Your task to perform on an android device: turn on priority inbox in the gmail app Image 0: 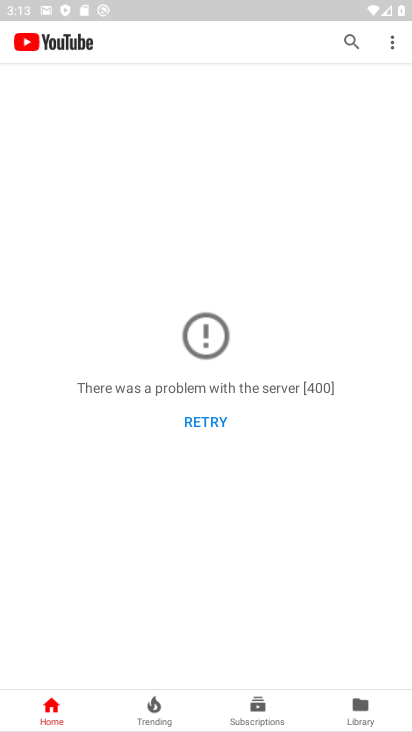
Step 0: press home button
Your task to perform on an android device: turn on priority inbox in the gmail app Image 1: 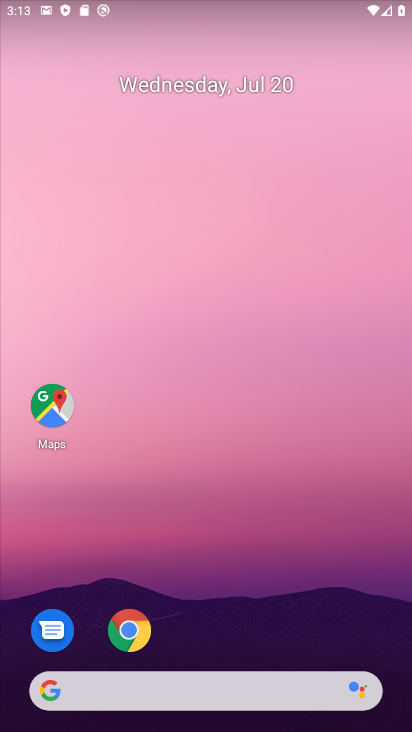
Step 1: drag from (237, 493) to (333, 0)
Your task to perform on an android device: turn on priority inbox in the gmail app Image 2: 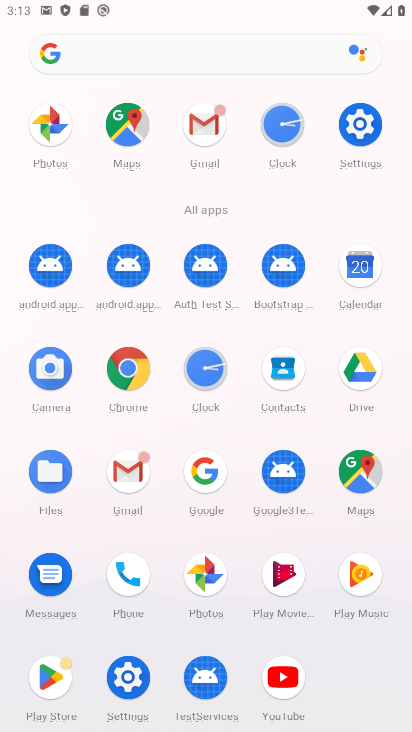
Step 2: click (209, 123)
Your task to perform on an android device: turn on priority inbox in the gmail app Image 3: 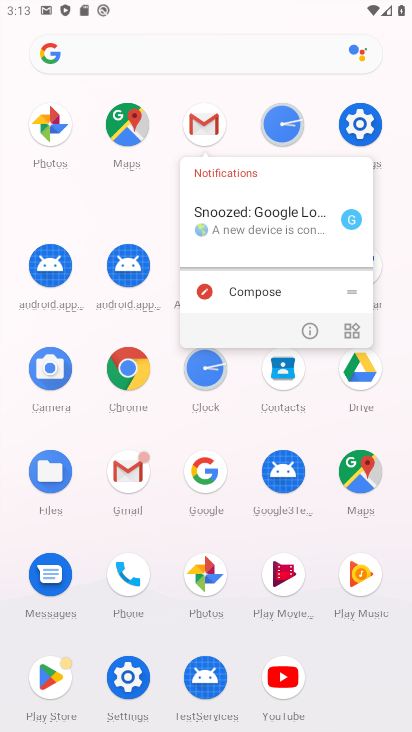
Step 3: click (209, 135)
Your task to perform on an android device: turn on priority inbox in the gmail app Image 4: 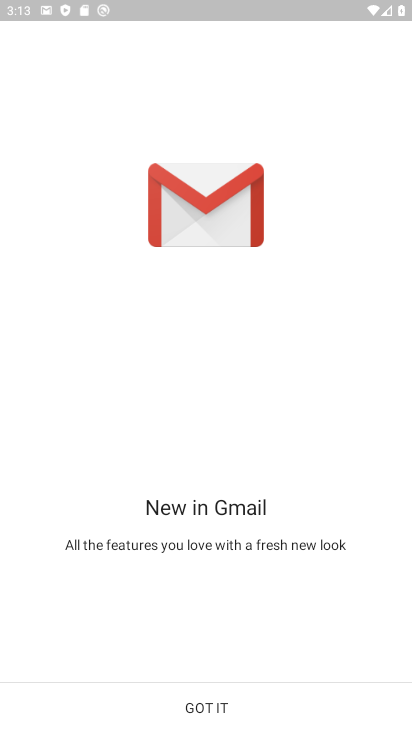
Step 4: click (199, 706)
Your task to perform on an android device: turn on priority inbox in the gmail app Image 5: 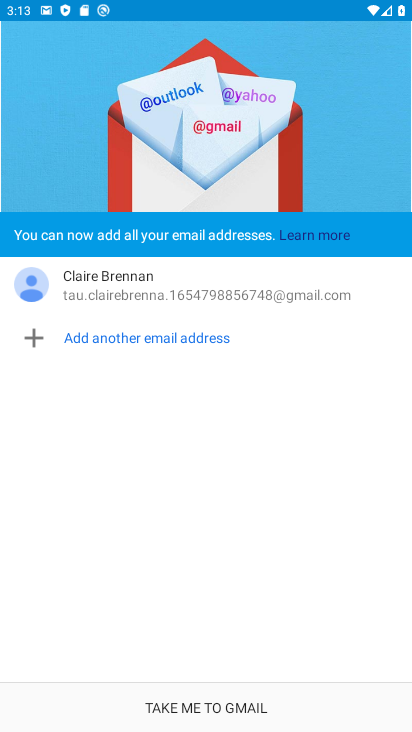
Step 5: click (205, 710)
Your task to perform on an android device: turn on priority inbox in the gmail app Image 6: 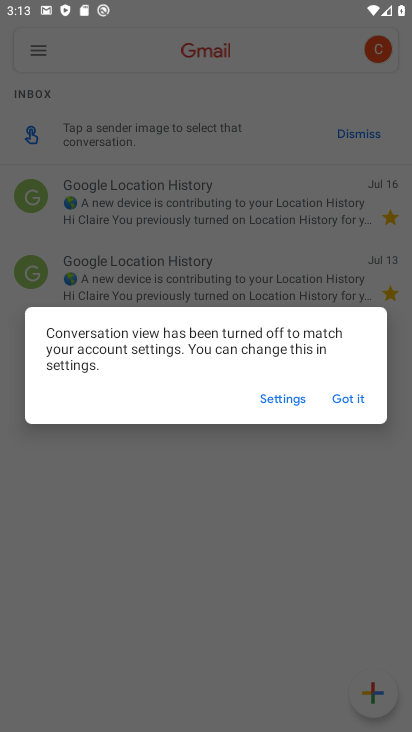
Step 6: click (346, 398)
Your task to perform on an android device: turn on priority inbox in the gmail app Image 7: 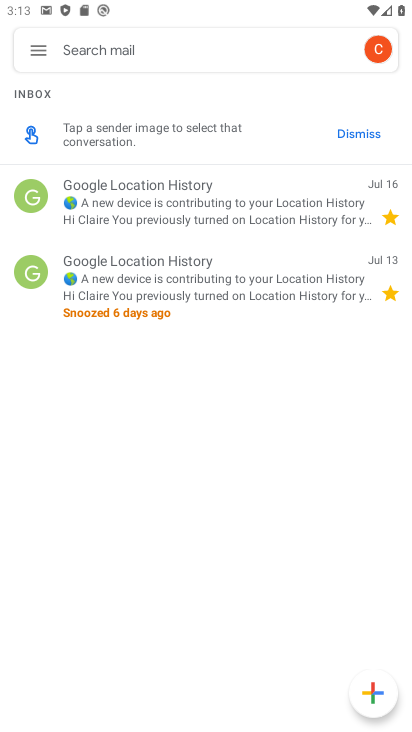
Step 7: click (32, 38)
Your task to perform on an android device: turn on priority inbox in the gmail app Image 8: 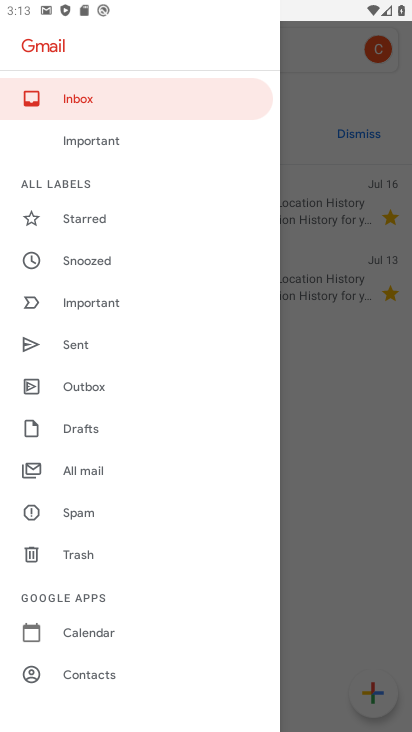
Step 8: drag from (114, 605) to (217, 103)
Your task to perform on an android device: turn on priority inbox in the gmail app Image 9: 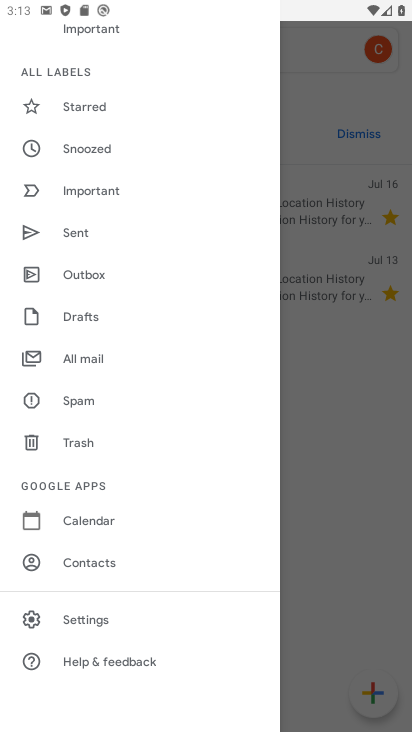
Step 9: click (103, 623)
Your task to perform on an android device: turn on priority inbox in the gmail app Image 10: 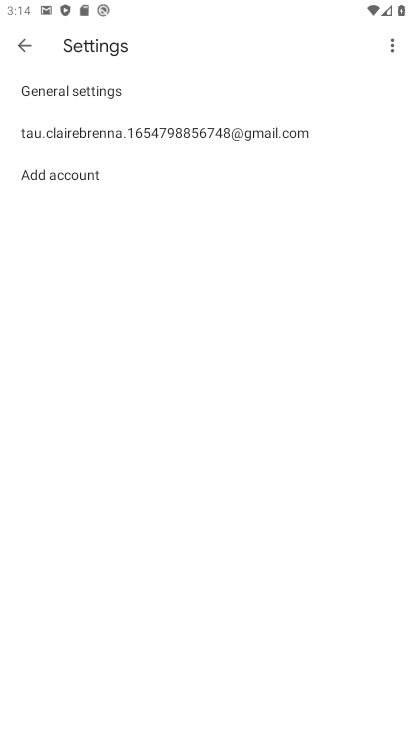
Step 10: click (257, 132)
Your task to perform on an android device: turn on priority inbox in the gmail app Image 11: 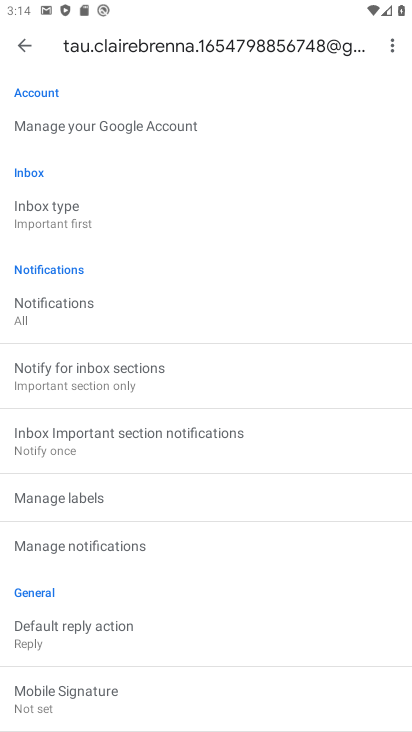
Step 11: click (72, 216)
Your task to perform on an android device: turn on priority inbox in the gmail app Image 12: 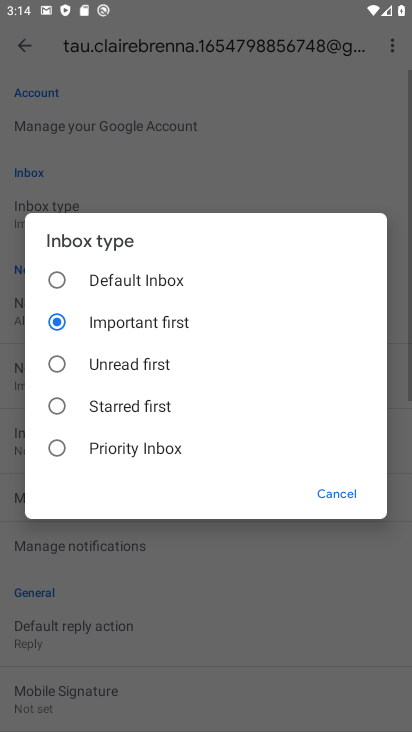
Step 12: click (59, 450)
Your task to perform on an android device: turn on priority inbox in the gmail app Image 13: 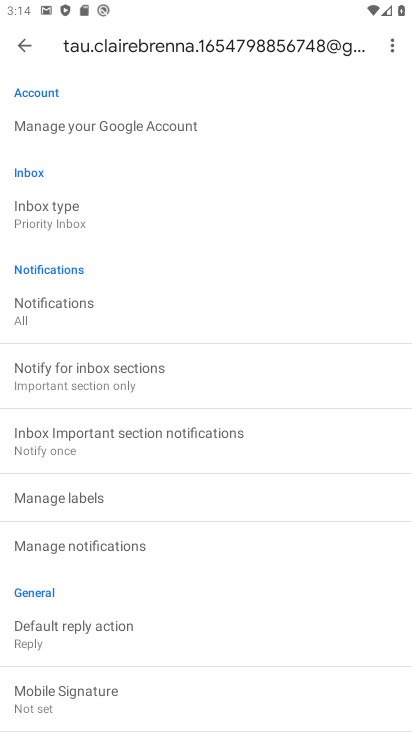
Step 13: task complete